Your task to perform on an android device: turn off notifications settings in the gmail app Image 0: 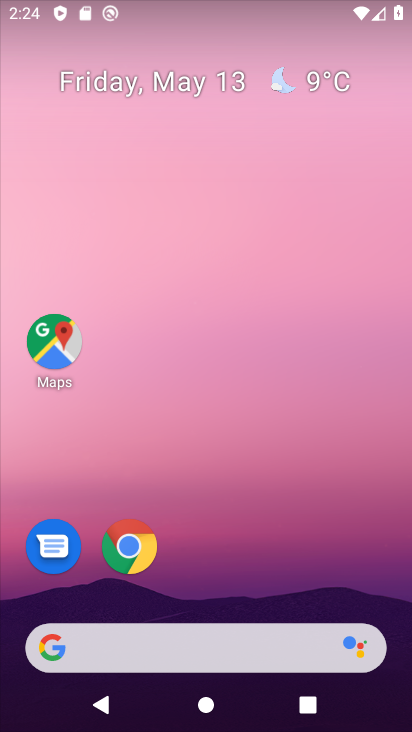
Step 0: drag from (290, 502) to (245, 11)
Your task to perform on an android device: turn off notifications settings in the gmail app Image 1: 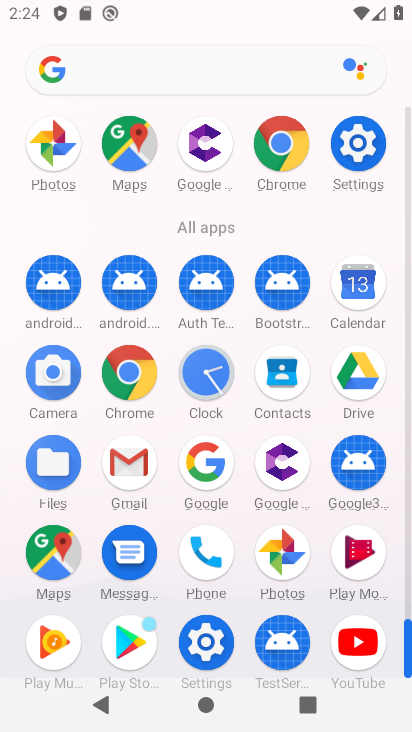
Step 1: drag from (16, 522) to (7, 239)
Your task to perform on an android device: turn off notifications settings in the gmail app Image 2: 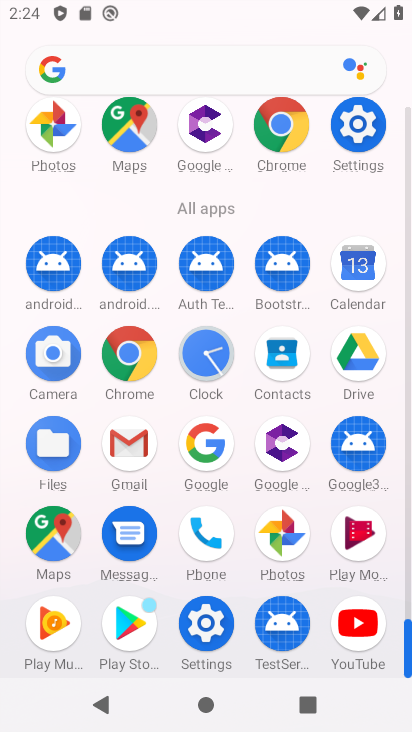
Step 2: click (120, 432)
Your task to perform on an android device: turn off notifications settings in the gmail app Image 3: 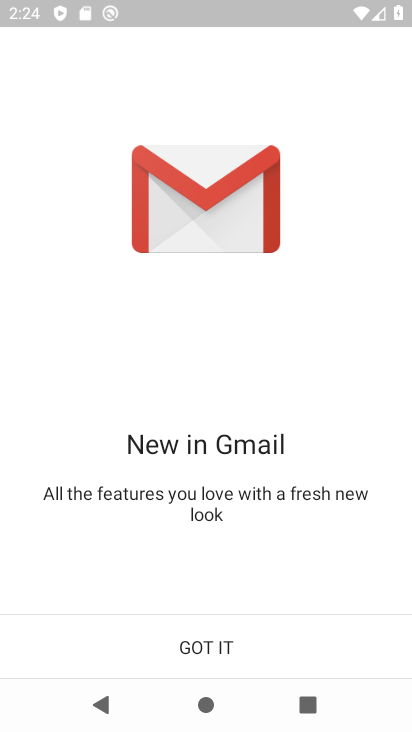
Step 3: click (221, 654)
Your task to perform on an android device: turn off notifications settings in the gmail app Image 4: 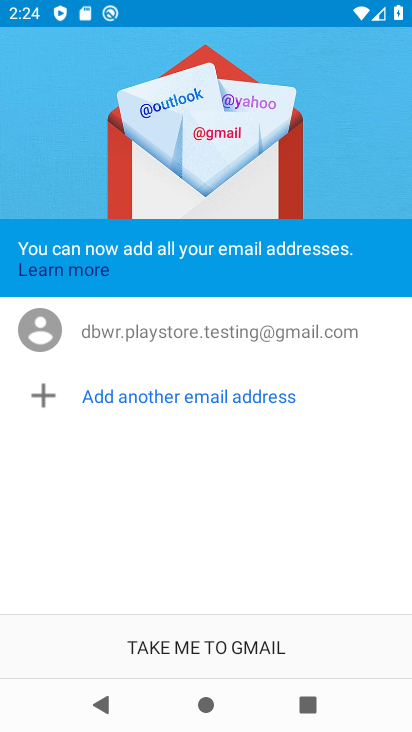
Step 4: click (221, 654)
Your task to perform on an android device: turn off notifications settings in the gmail app Image 5: 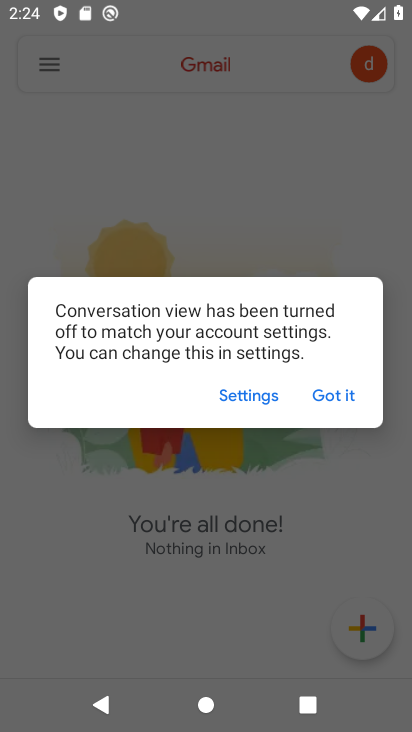
Step 5: click (347, 393)
Your task to perform on an android device: turn off notifications settings in the gmail app Image 6: 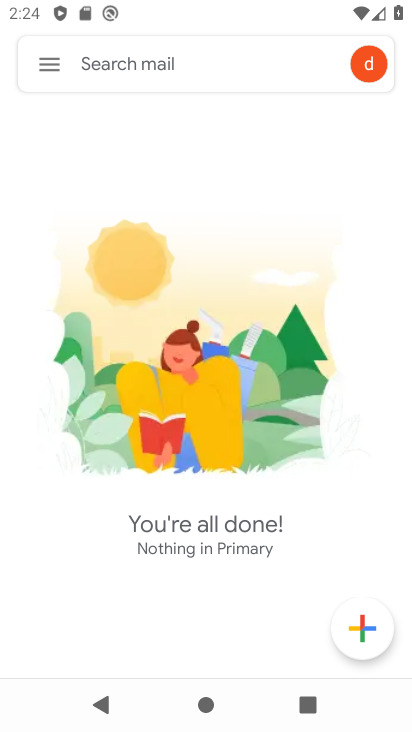
Step 6: click (45, 66)
Your task to perform on an android device: turn off notifications settings in the gmail app Image 7: 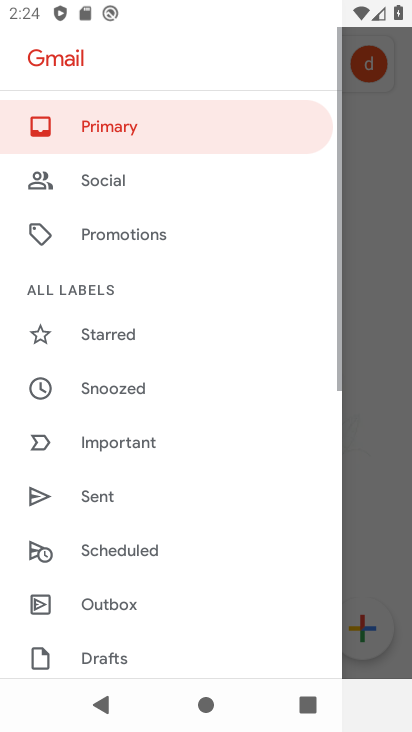
Step 7: drag from (119, 564) to (185, 114)
Your task to perform on an android device: turn off notifications settings in the gmail app Image 8: 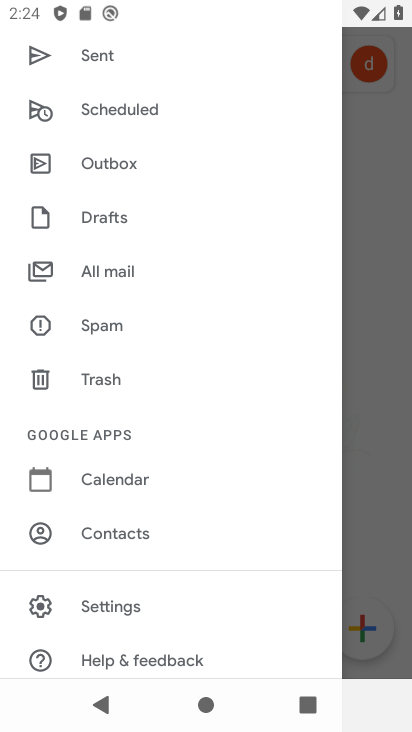
Step 8: click (108, 601)
Your task to perform on an android device: turn off notifications settings in the gmail app Image 9: 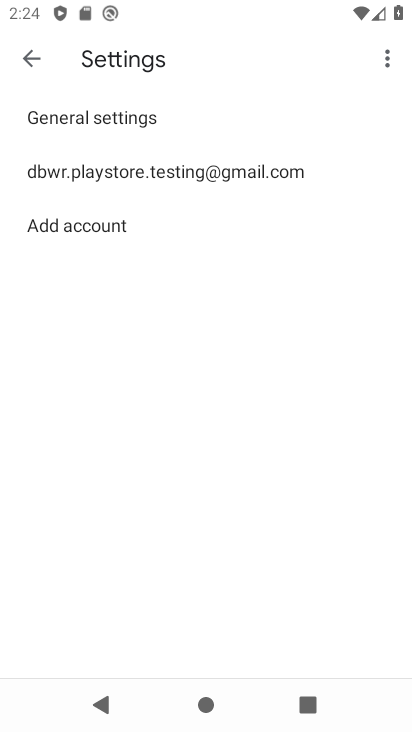
Step 9: click (160, 170)
Your task to perform on an android device: turn off notifications settings in the gmail app Image 10: 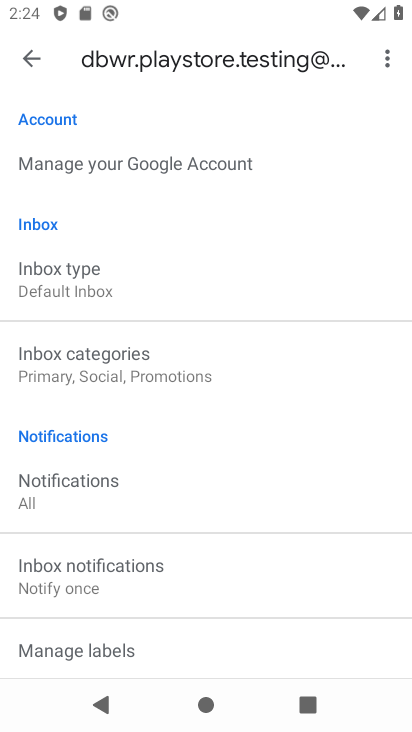
Step 10: drag from (160, 595) to (233, 172)
Your task to perform on an android device: turn off notifications settings in the gmail app Image 11: 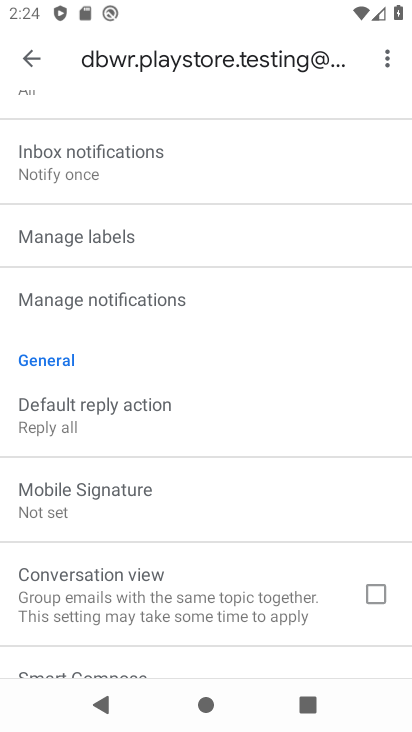
Step 11: click (129, 275)
Your task to perform on an android device: turn off notifications settings in the gmail app Image 12: 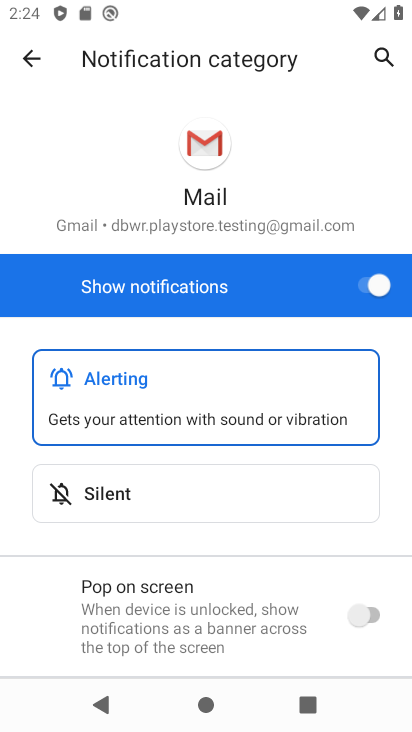
Step 12: click (376, 279)
Your task to perform on an android device: turn off notifications settings in the gmail app Image 13: 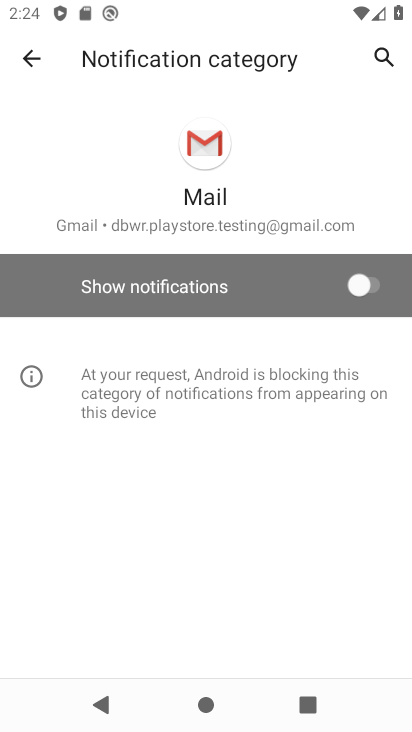
Step 13: task complete